Your task to perform on an android device: open app "Move to iOS" (install if not already installed), go to login, and select forgot password Image 0: 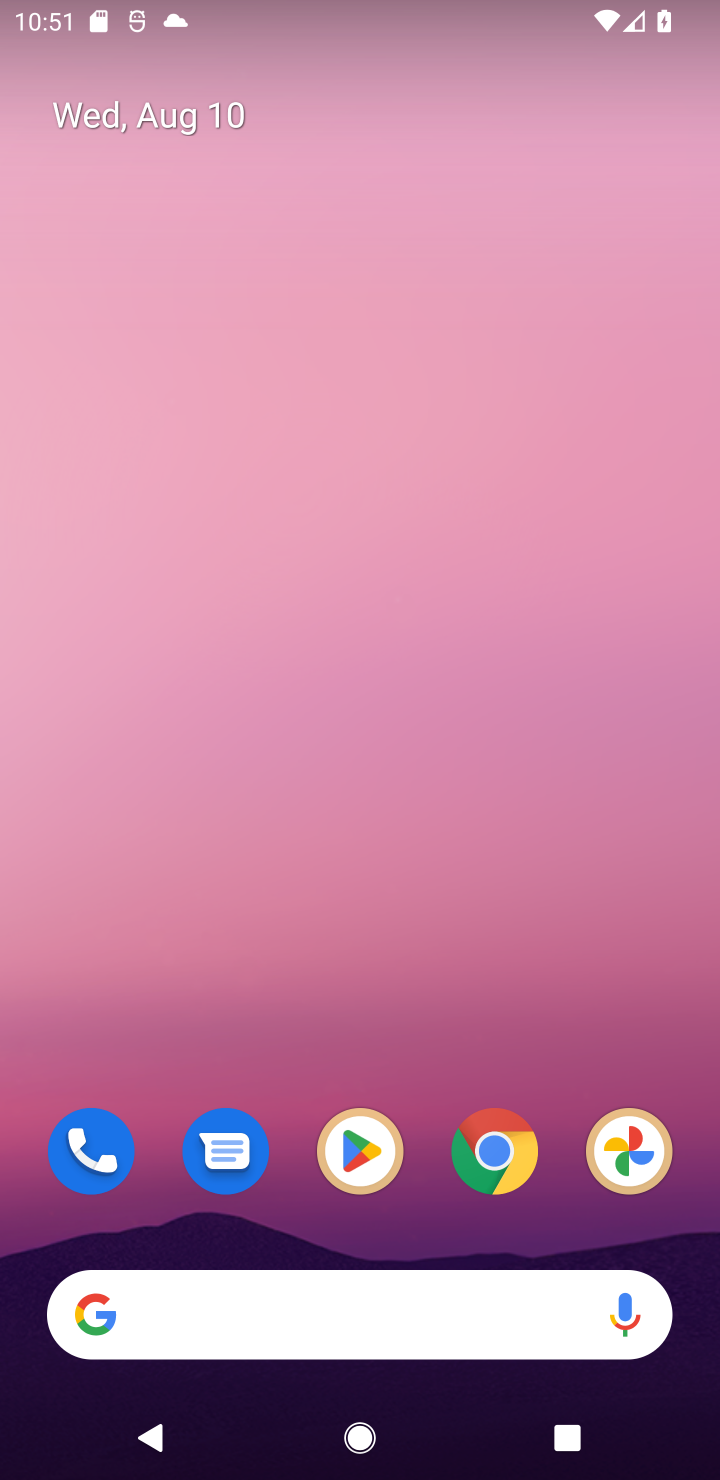
Step 0: drag from (421, 1093) to (508, 4)
Your task to perform on an android device: open app "Move to iOS" (install if not already installed), go to login, and select forgot password Image 1: 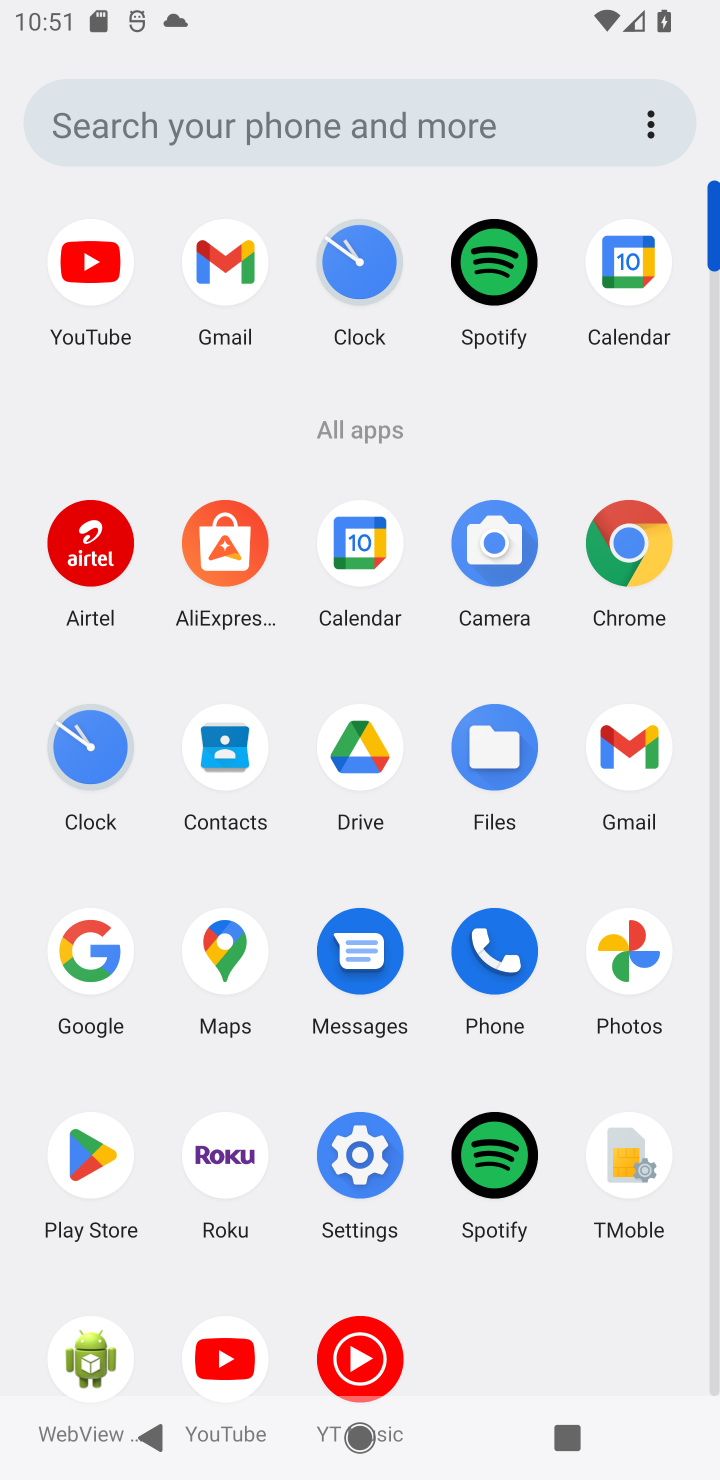
Step 1: click (84, 1142)
Your task to perform on an android device: open app "Move to iOS" (install if not already installed), go to login, and select forgot password Image 2: 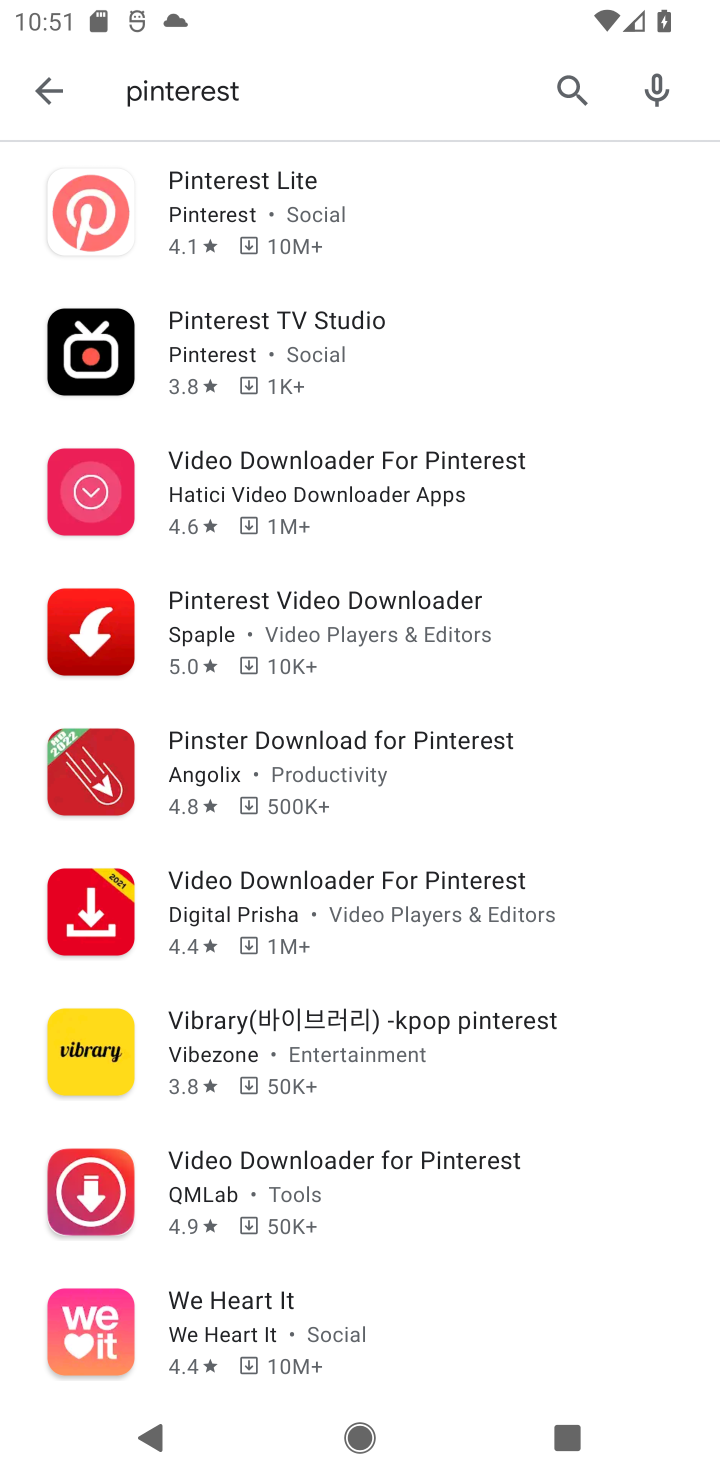
Step 2: click (571, 85)
Your task to perform on an android device: open app "Move to iOS" (install if not already installed), go to login, and select forgot password Image 3: 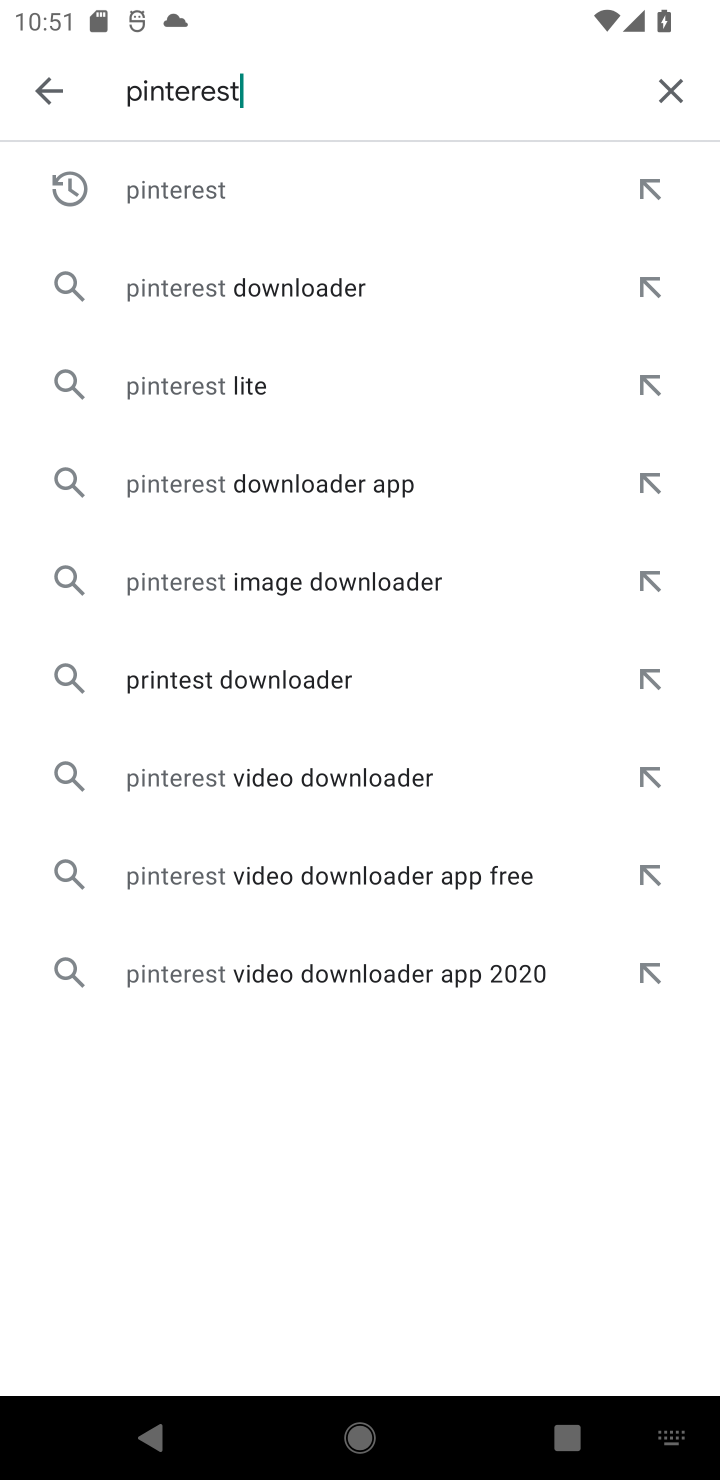
Step 3: type "Move to iOS"
Your task to perform on an android device: open app "Move to iOS" (install if not already installed), go to login, and select forgot password Image 4: 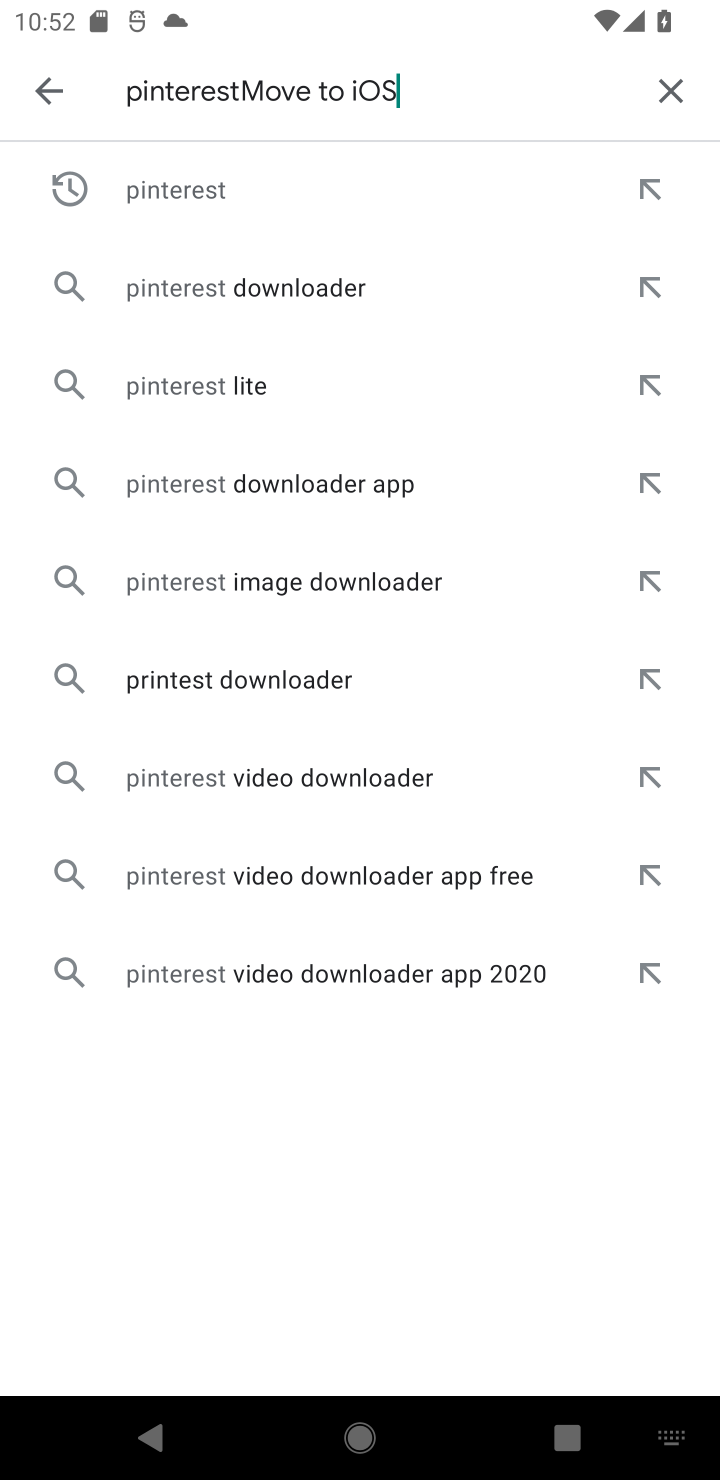
Step 4: type ""
Your task to perform on an android device: open app "Move to iOS" (install if not already installed), go to login, and select forgot password Image 5: 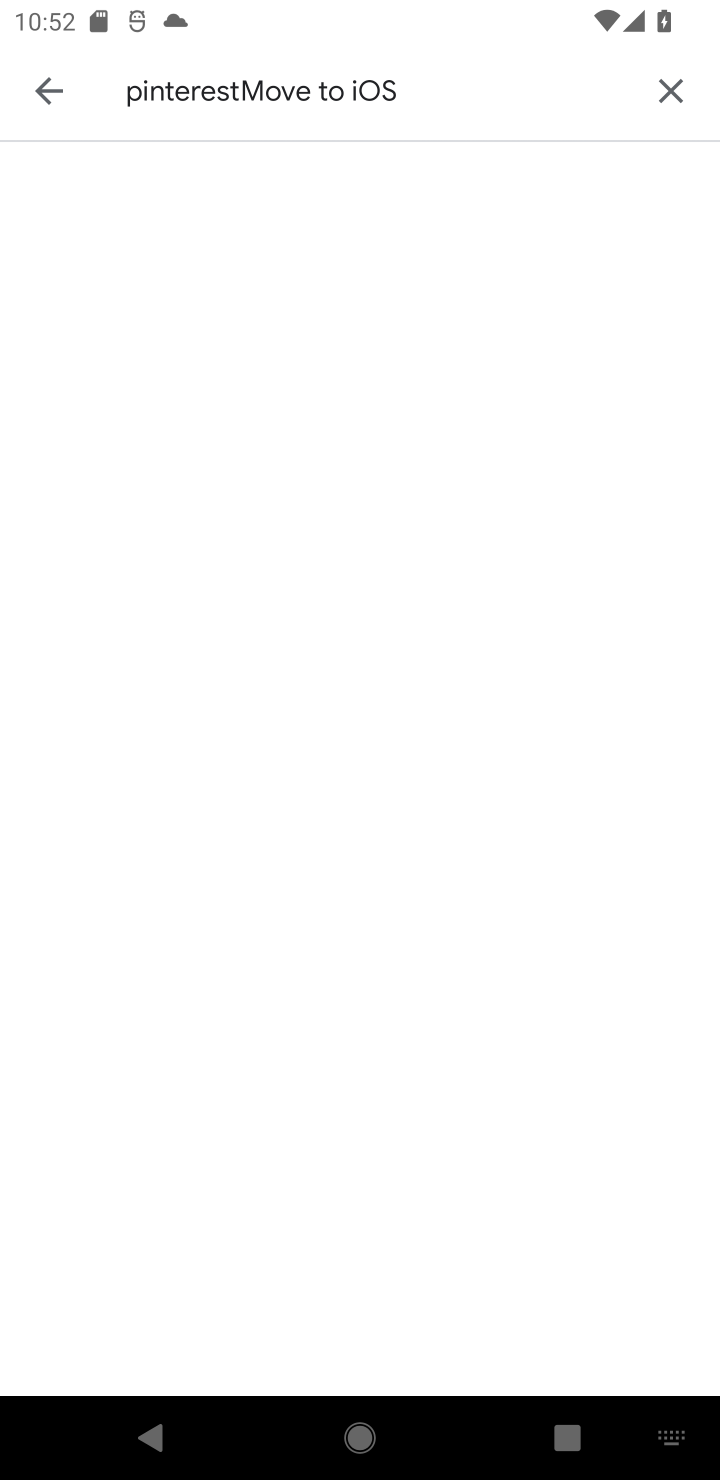
Step 5: click (670, 76)
Your task to perform on an android device: open app "Move to iOS" (install if not already installed), go to login, and select forgot password Image 6: 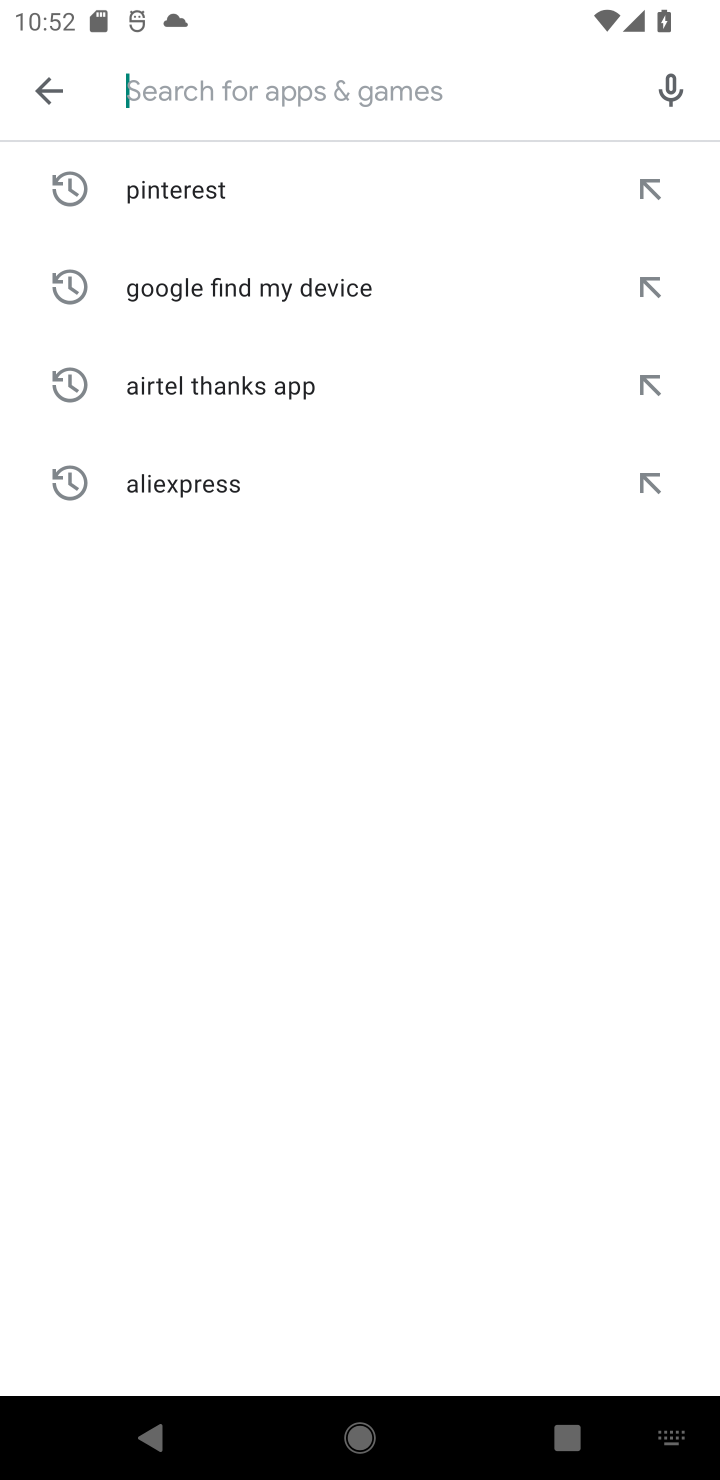
Step 6: type "Move to iOS"
Your task to perform on an android device: open app "Move to iOS" (install if not already installed), go to login, and select forgot password Image 7: 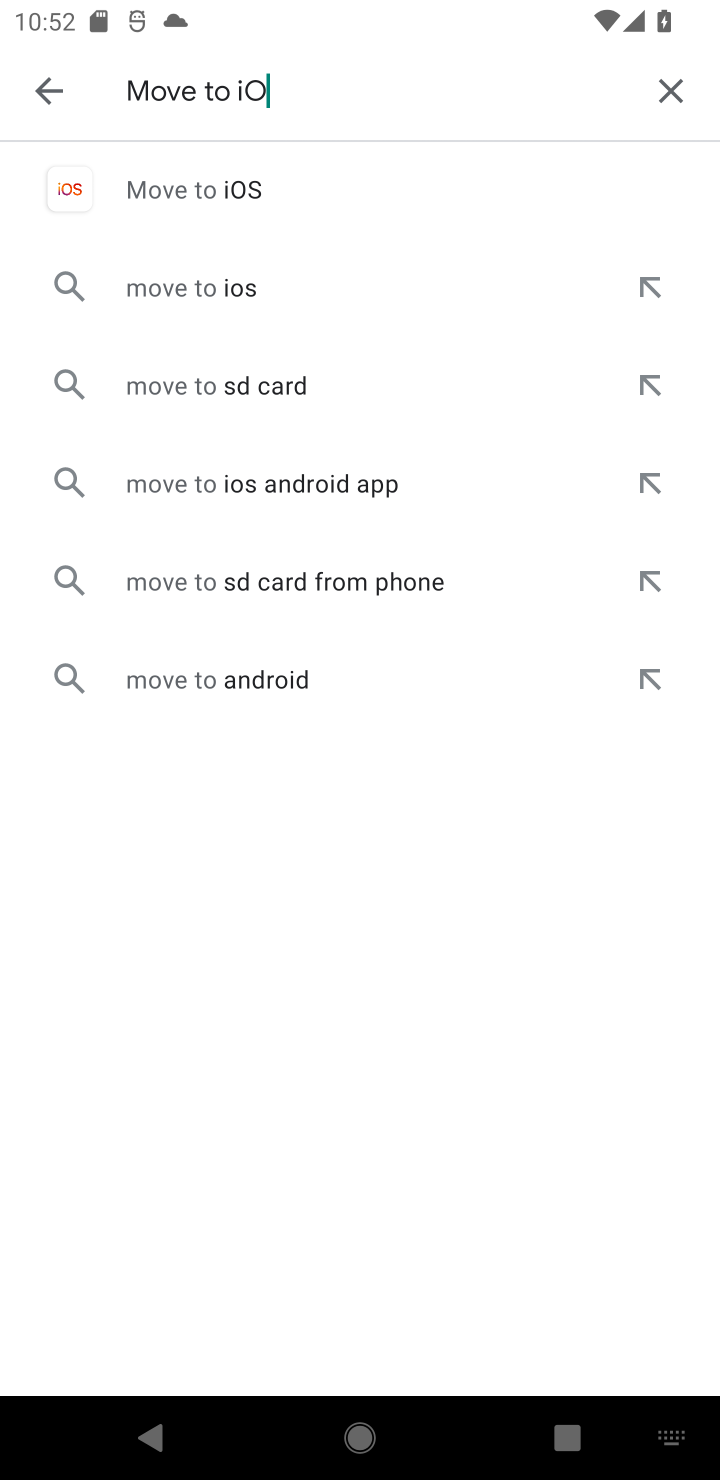
Step 7: type ""
Your task to perform on an android device: open app "Move to iOS" (install if not already installed), go to login, and select forgot password Image 8: 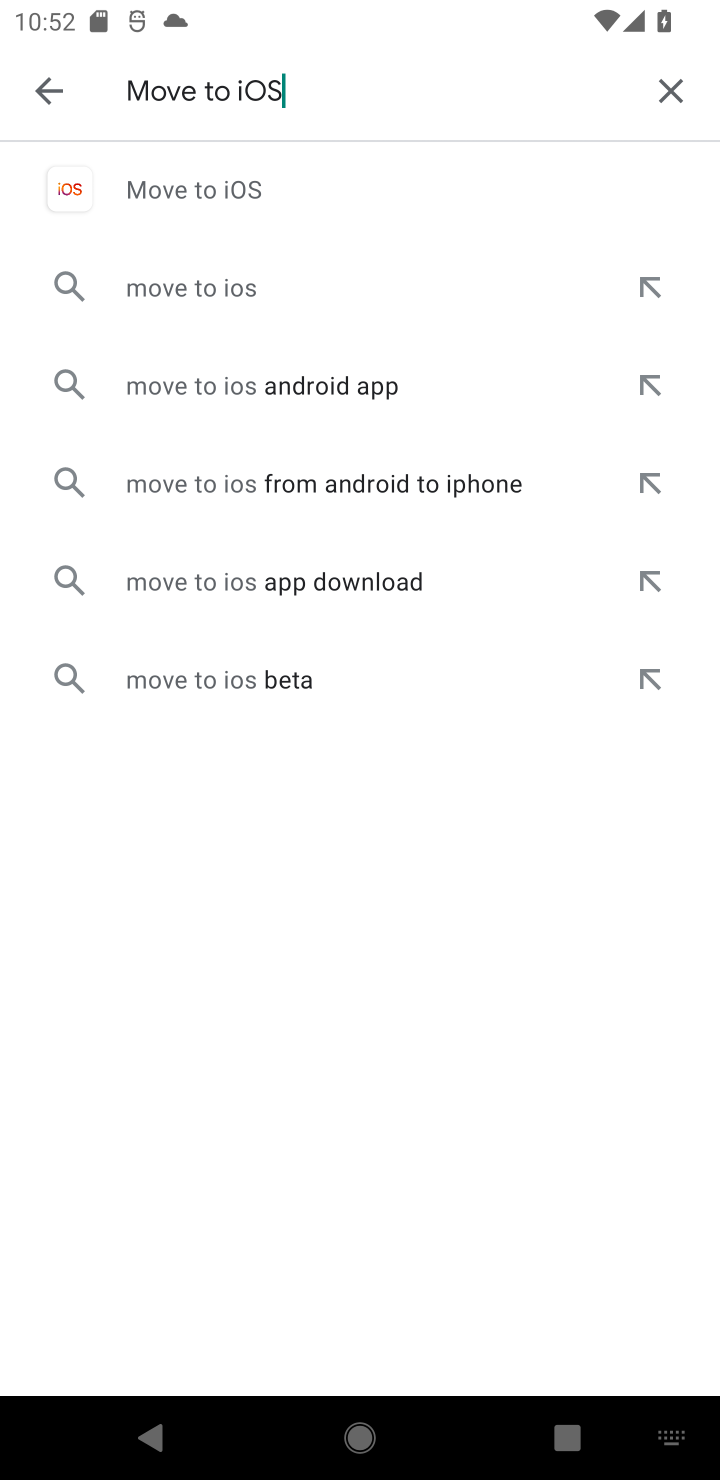
Step 8: click (252, 175)
Your task to perform on an android device: open app "Move to iOS" (install if not already installed), go to login, and select forgot password Image 9: 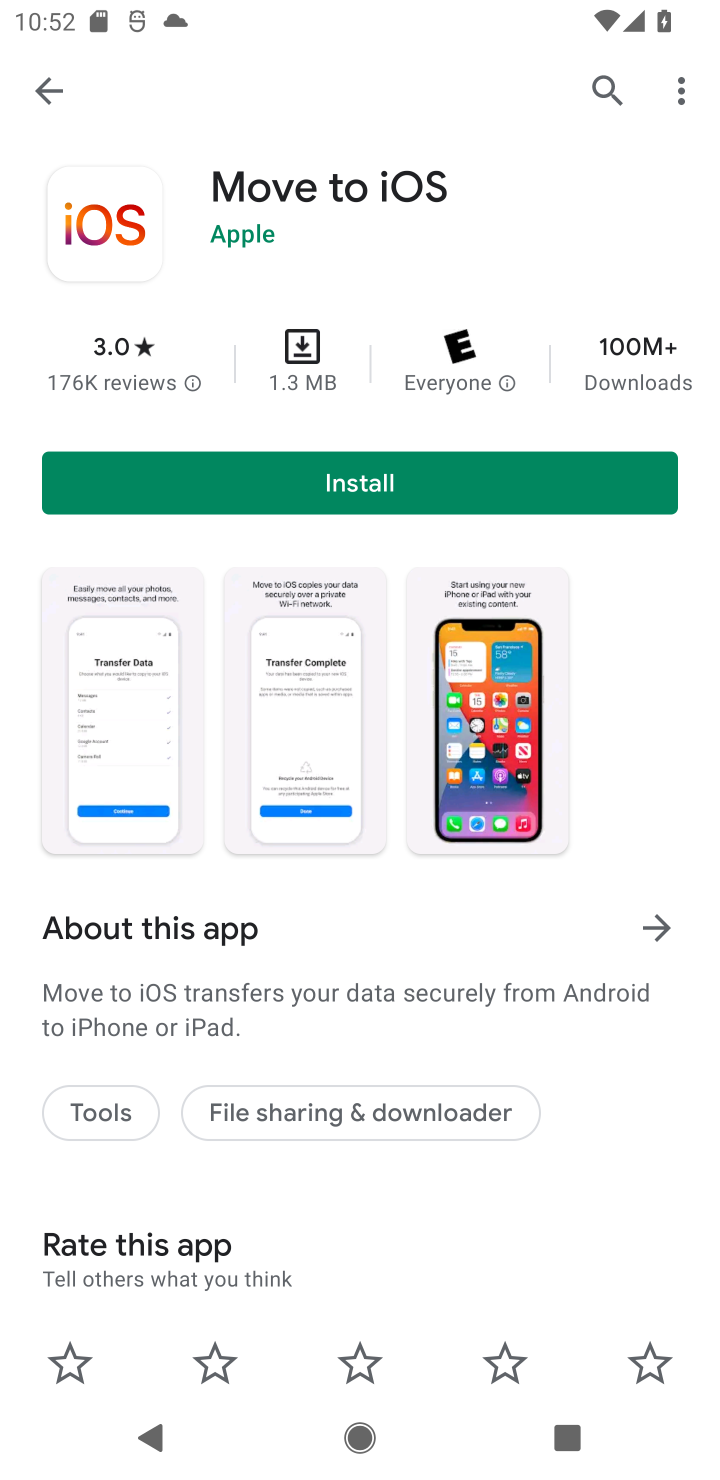
Step 9: click (388, 487)
Your task to perform on an android device: open app "Move to iOS" (install if not already installed), go to login, and select forgot password Image 10: 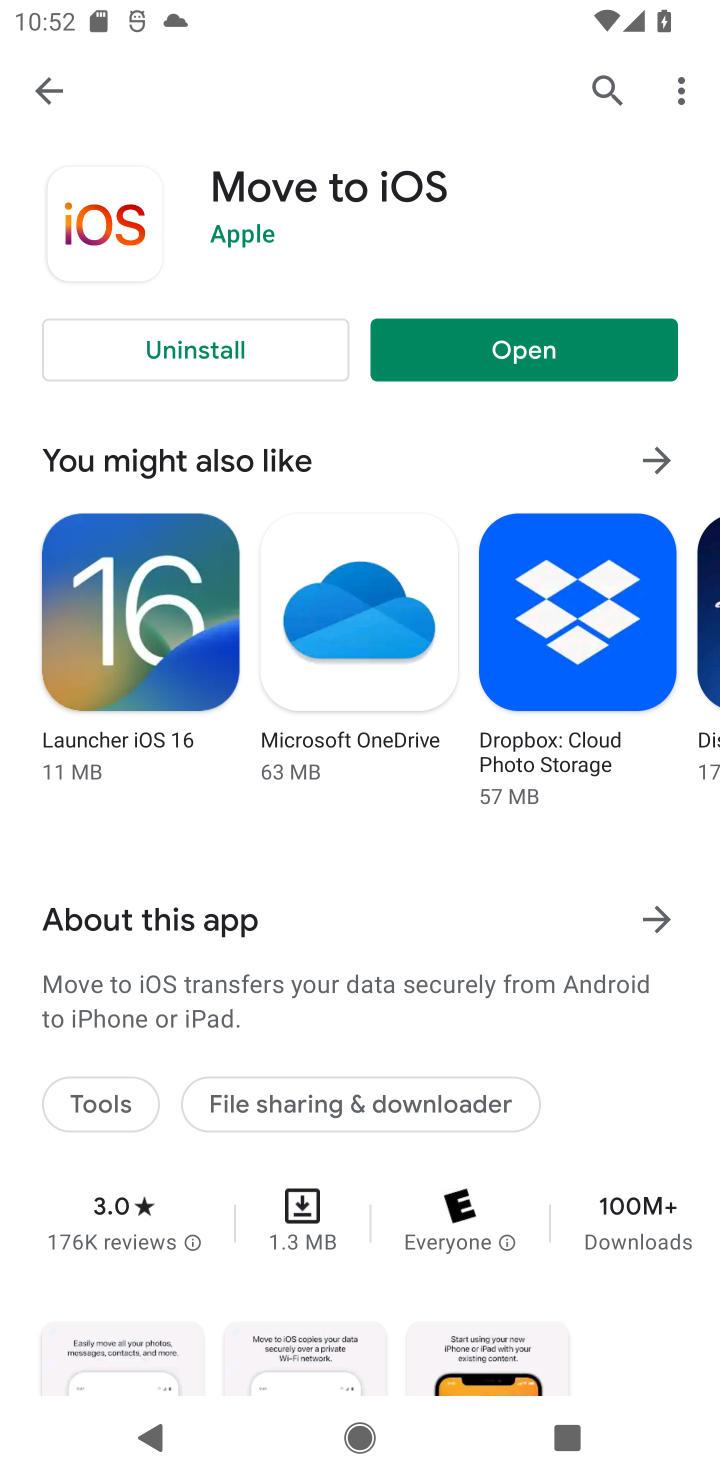
Step 10: click (558, 345)
Your task to perform on an android device: open app "Move to iOS" (install if not already installed), go to login, and select forgot password Image 11: 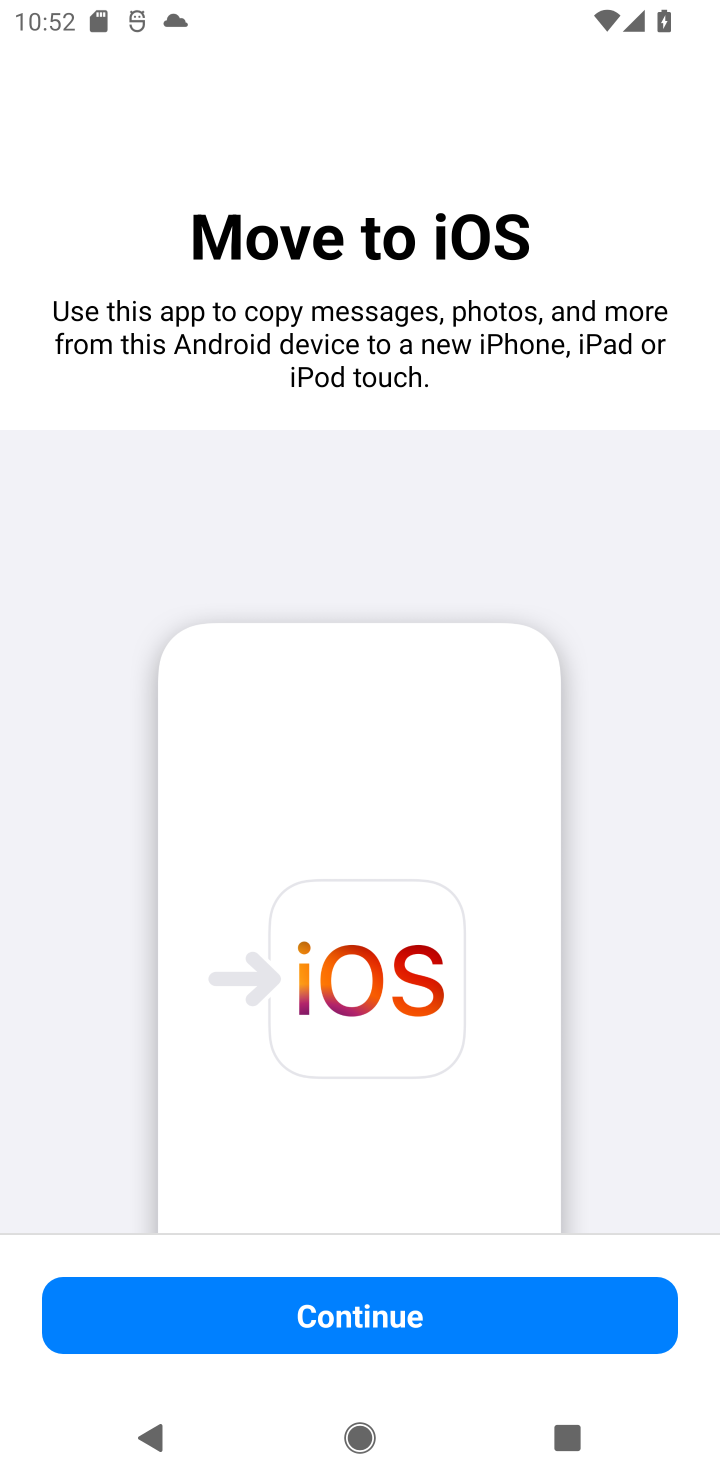
Step 11: click (350, 1318)
Your task to perform on an android device: open app "Move to iOS" (install if not already installed), go to login, and select forgot password Image 12: 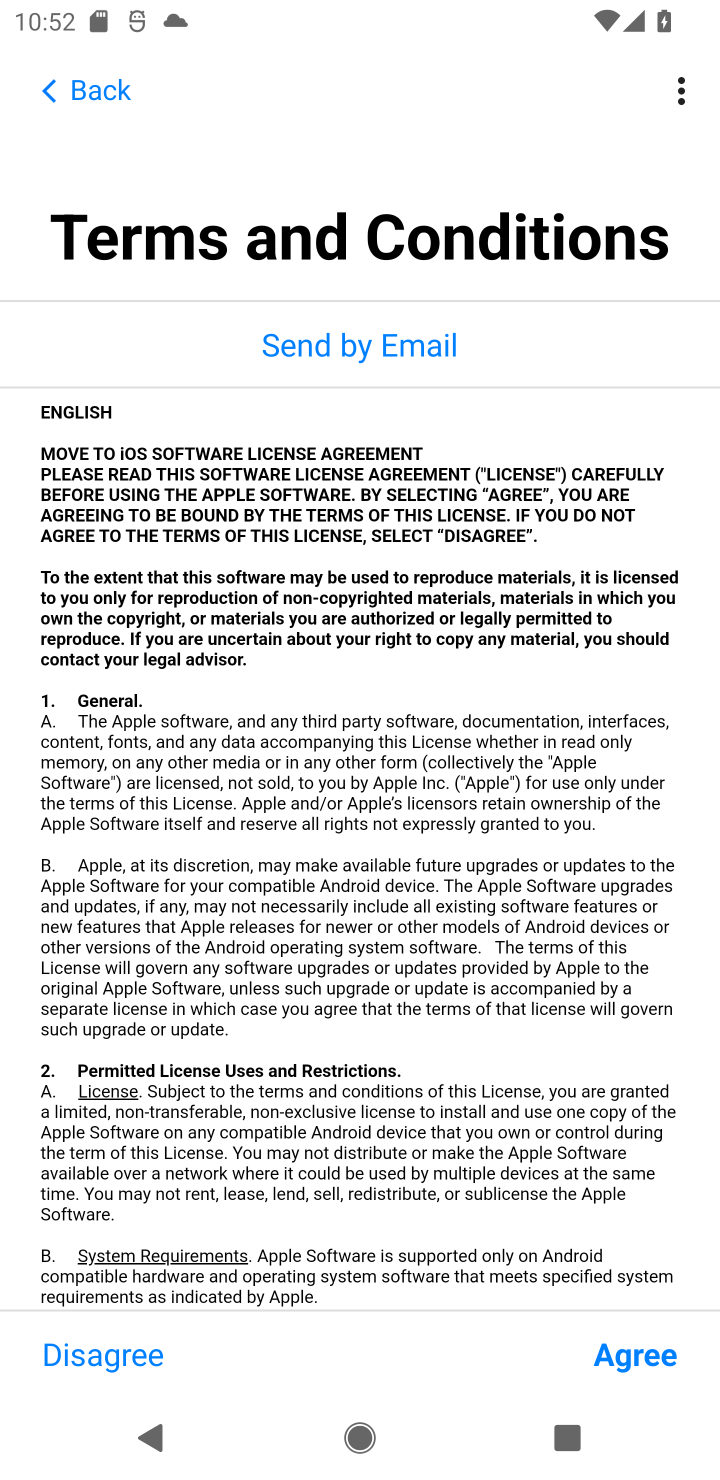
Step 12: click (629, 1362)
Your task to perform on an android device: open app "Move to iOS" (install if not already installed), go to login, and select forgot password Image 13: 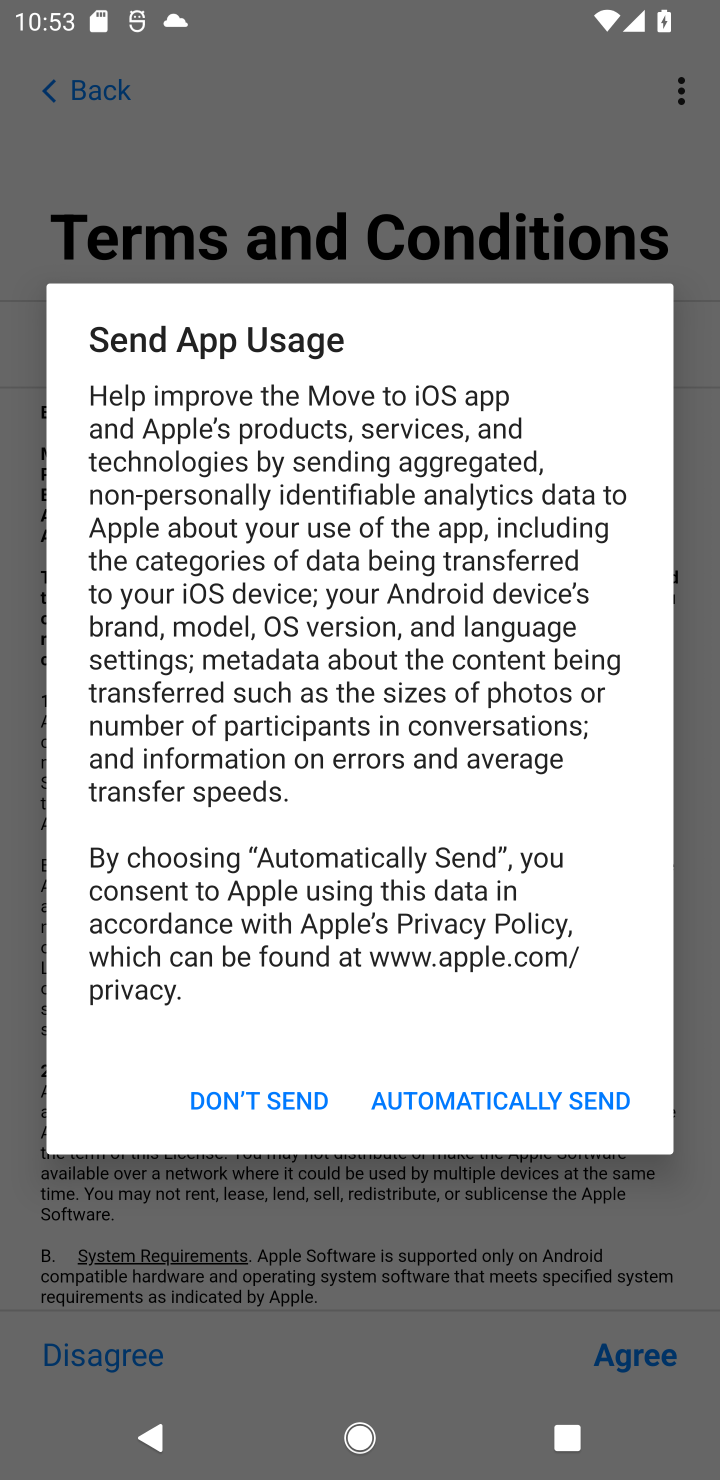
Step 13: click (570, 1110)
Your task to perform on an android device: open app "Move to iOS" (install if not already installed), go to login, and select forgot password Image 14: 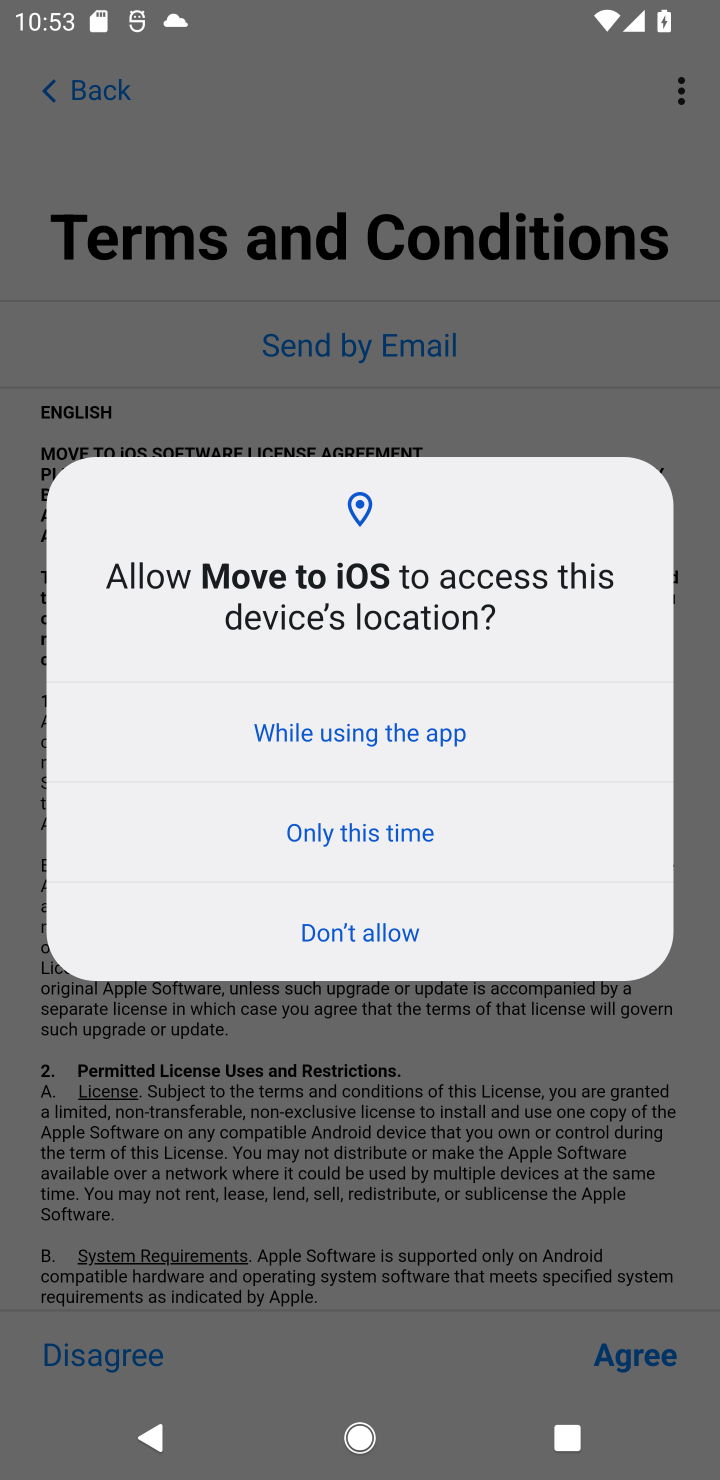
Step 14: click (340, 741)
Your task to perform on an android device: open app "Move to iOS" (install if not already installed), go to login, and select forgot password Image 15: 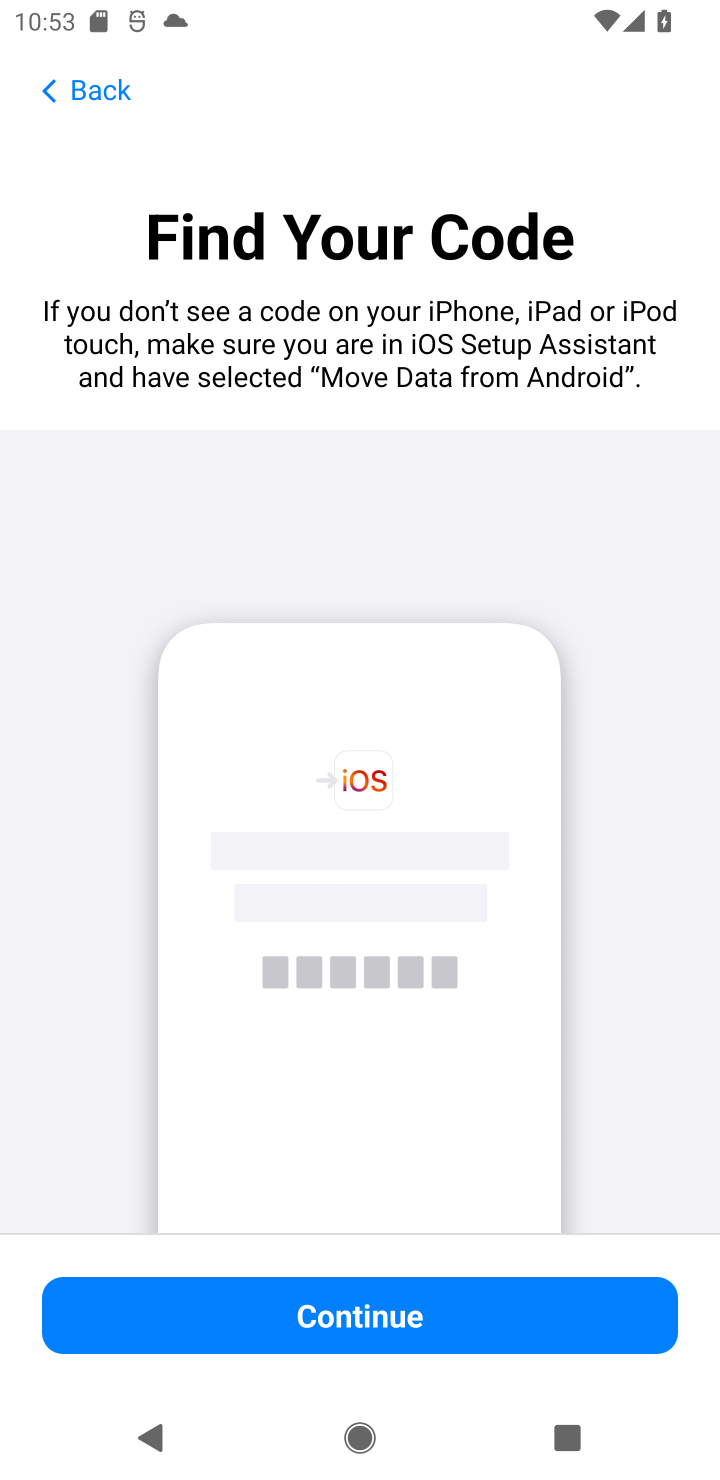
Step 15: click (377, 1317)
Your task to perform on an android device: open app "Move to iOS" (install if not already installed), go to login, and select forgot password Image 16: 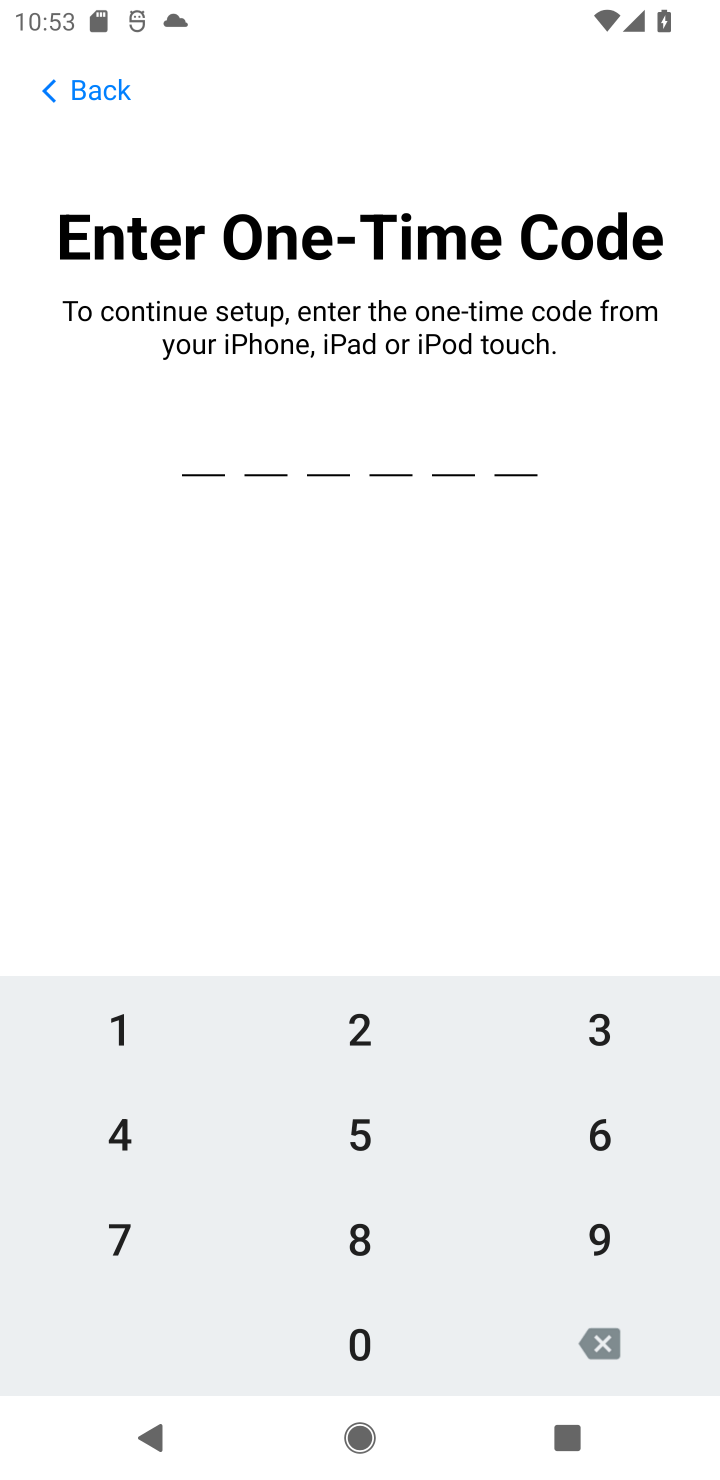
Step 16: task complete